Your task to perform on an android device: remove spam from my inbox in the gmail app Image 0: 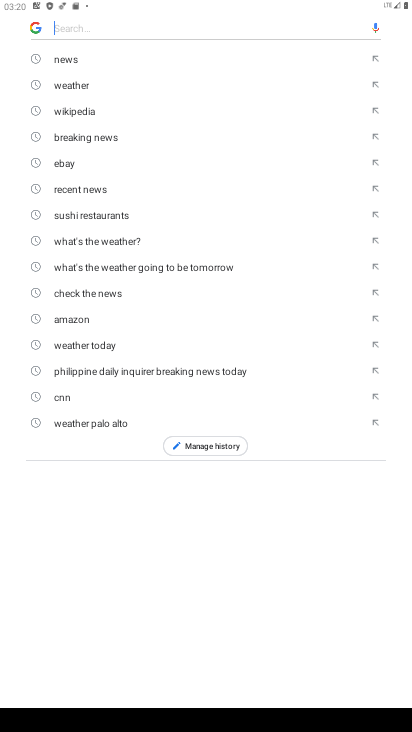
Step 0: press back button
Your task to perform on an android device: remove spam from my inbox in the gmail app Image 1: 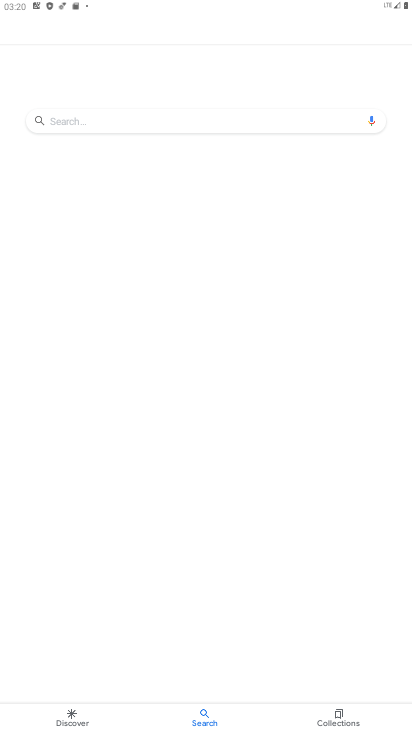
Step 1: press back button
Your task to perform on an android device: remove spam from my inbox in the gmail app Image 2: 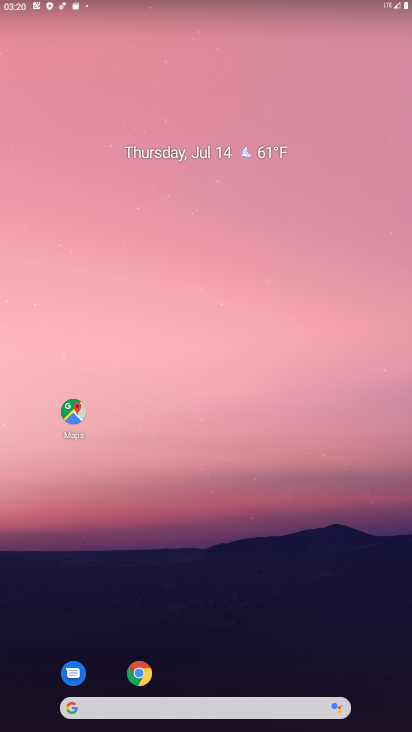
Step 2: drag from (191, 662) to (191, 294)
Your task to perform on an android device: remove spam from my inbox in the gmail app Image 3: 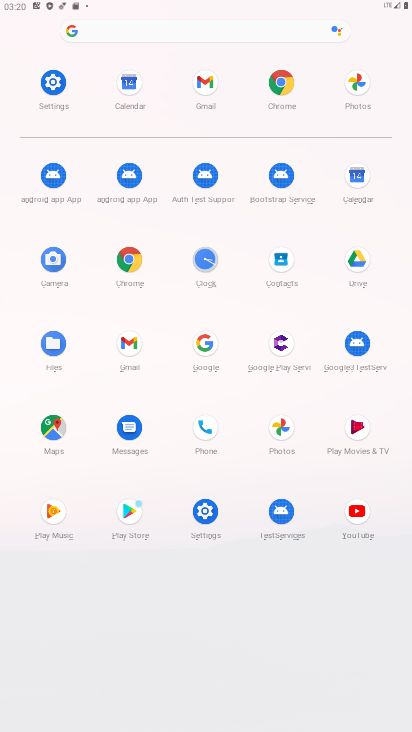
Step 3: click (210, 109)
Your task to perform on an android device: remove spam from my inbox in the gmail app Image 4: 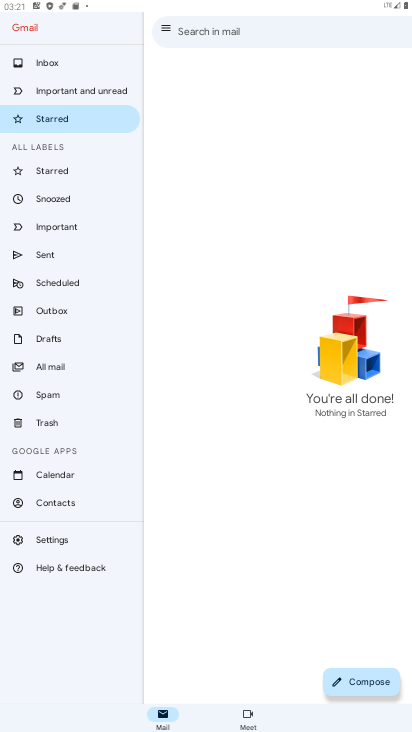
Step 4: click (43, 397)
Your task to perform on an android device: remove spam from my inbox in the gmail app Image 5: 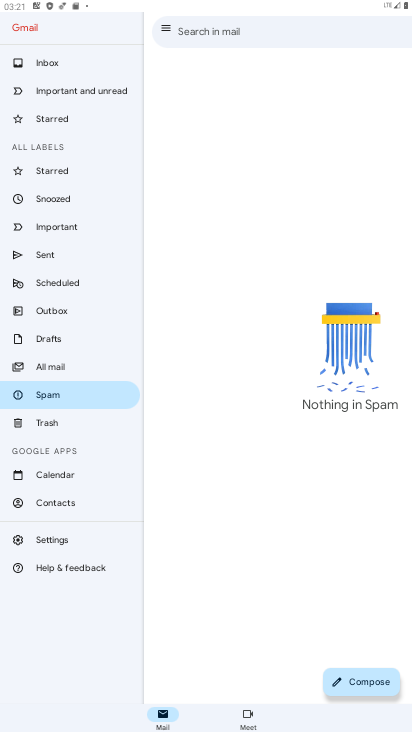
Step 5: task complete